Your task to perform on an android device: Go to privacy settings Image 0: 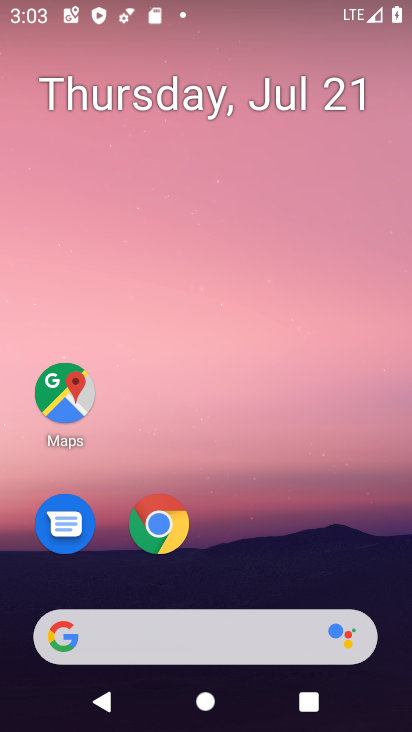
Step 0: drag from (282, 530) to (348, 2)
Your task to perform on an android device: Go to privacy settings Image 1: 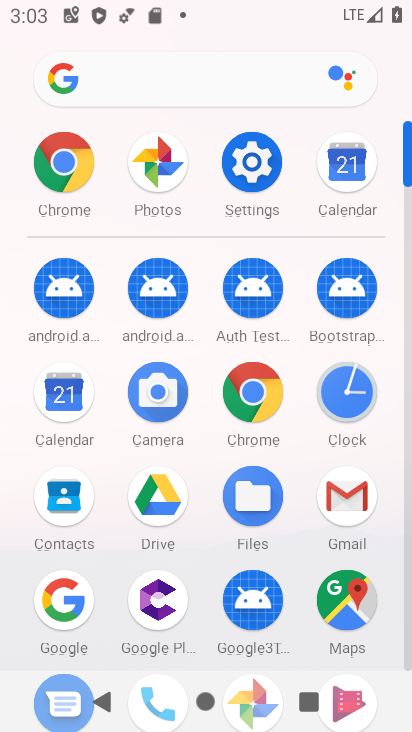
Step 1: click (258, 151)
Your task to perform on an android device: Go to privacy settings Image 2: 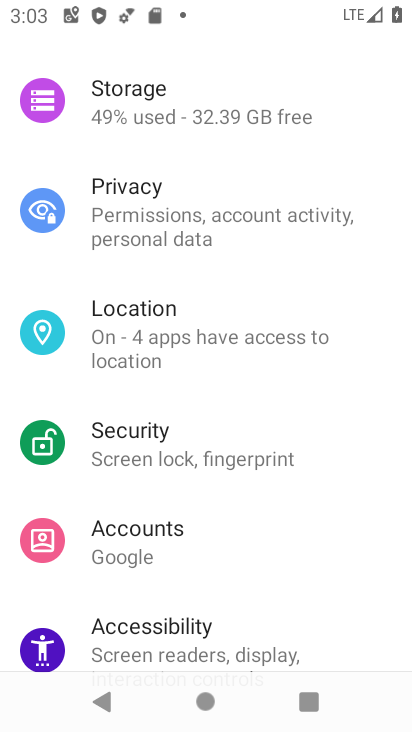
Step 2: click (215, 214)
Your task to perform on an android device: Go to privacy settings Image 3: 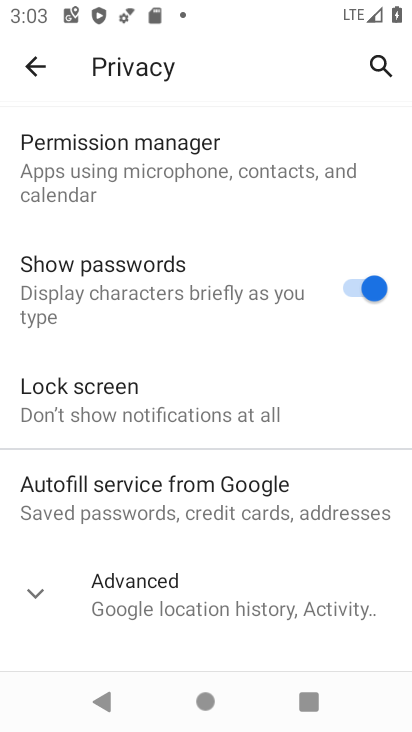
Step 3: task complete